Your task to perform on an android device: Go to calendar. Show me events next week Image 0: 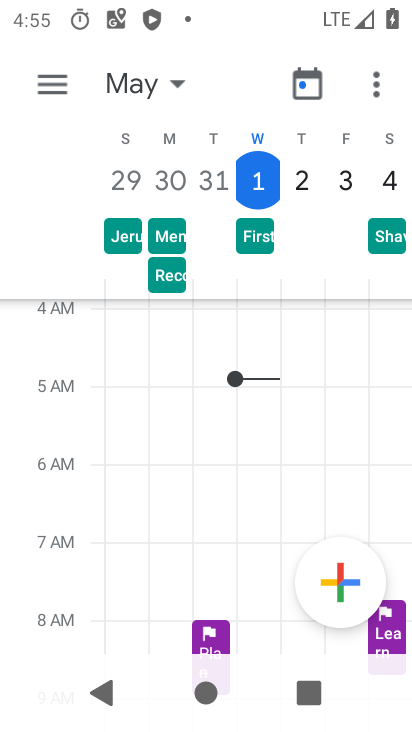
Step 0: press home button
Your task to perform on an android device: Go to calendar. Show me events next week Image 1: 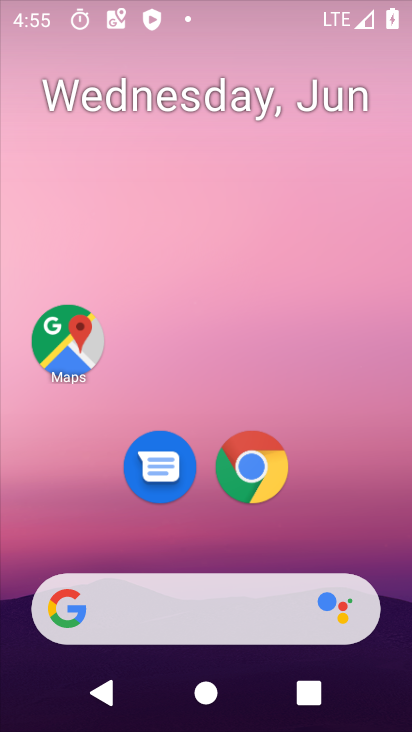
Step 1: drag from (373, 550) to (147, 47)
Your task to perform on an android device: Go to calendar. Show me events next week Image 2: 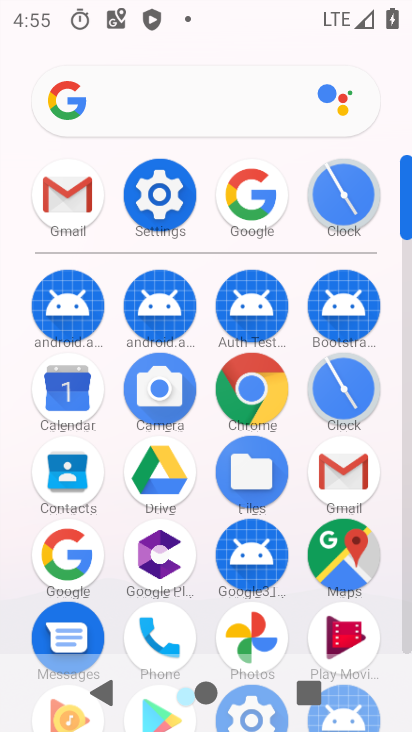
Step 2: click (72, 382)
Your task to perform on an android device: Go to calendar. Show me events next week Image 3: 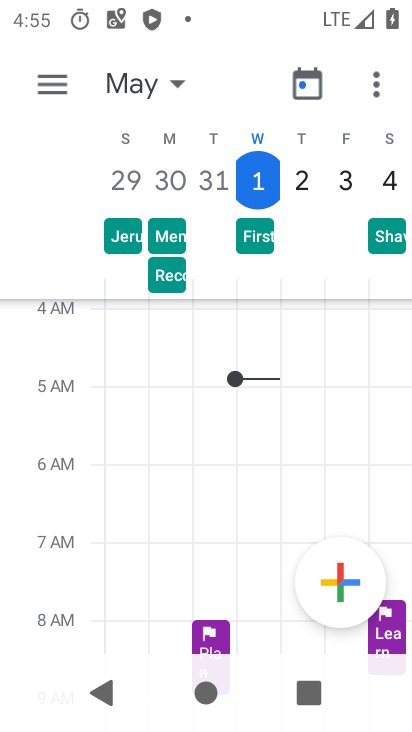
Step 3: task complete